Your task to perform on an android device: change the clock display to analog Image 0: 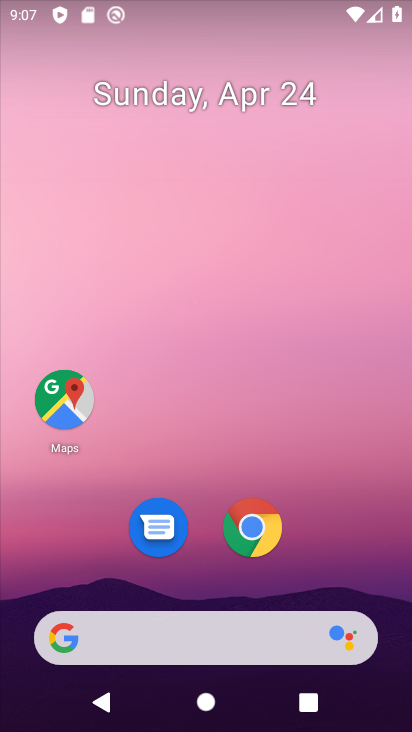
Step 0: drag from (263, 621) to (289, 10)
Your task to perform on an android device: change the clock display to analog Image 1: 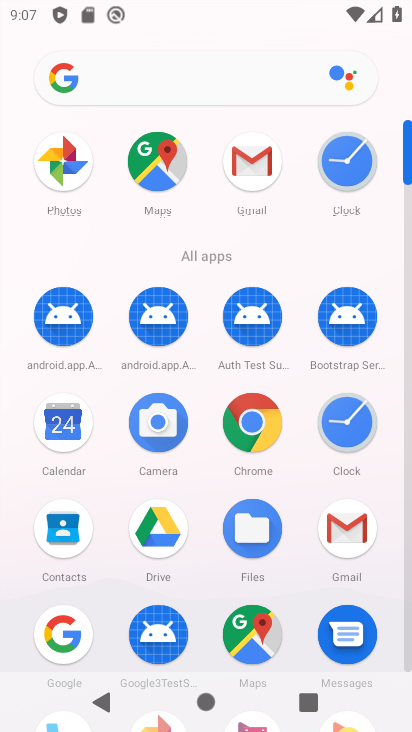
Step 1: click (345, 435)
Your task to perform on an android device: change the clock display to analog Image 2: 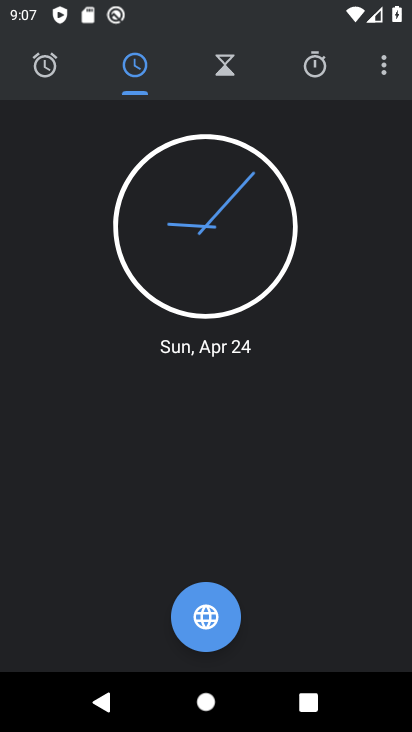
Step 2: task complete